Your task to perform on an android device: What's the weather? Image 0: 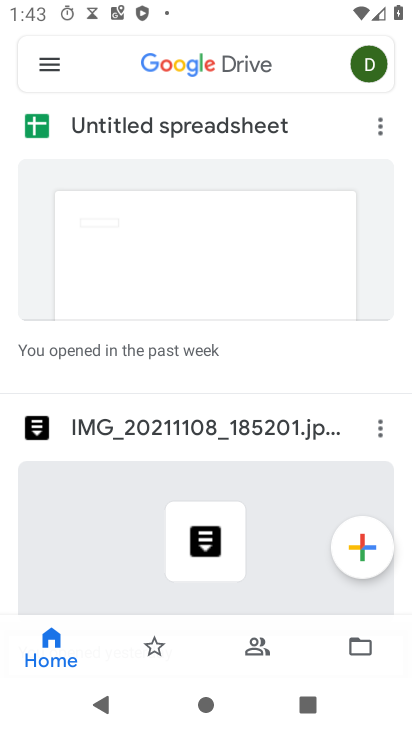
Step 0: press home button
Your task to perform on an android device: What's the weather? Image 1: 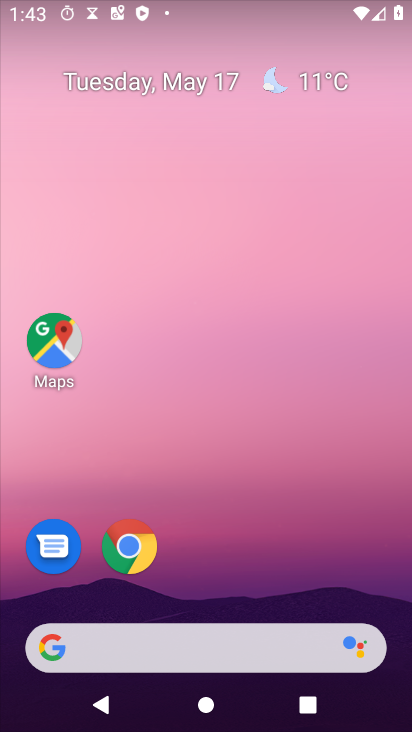
Step 1: click (295, 85)
Your task to perform on an android device: What's the weather? Image 2: 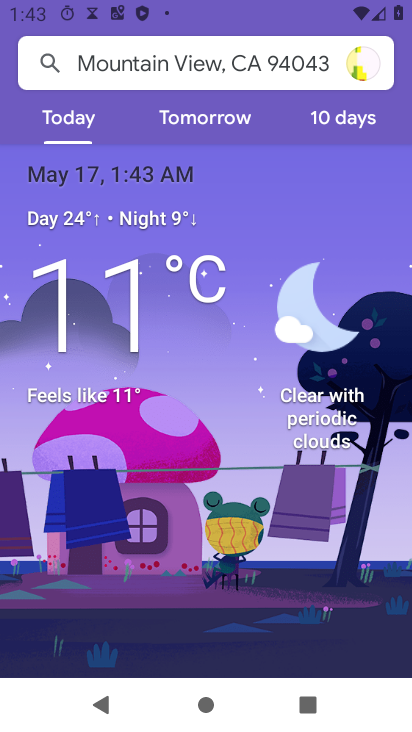
Step 2: task complete